Your task to perform on an android device: check data usage Image 0: 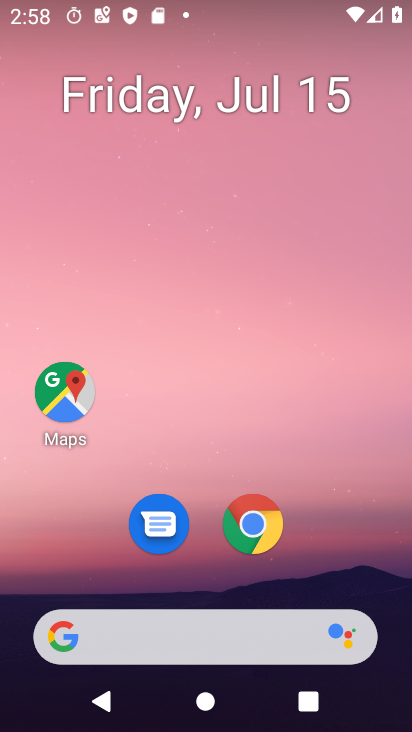
Step 0: drag from (200, 651) to (254, 459)
Your task to perform on an android device: check data usage Image 1: 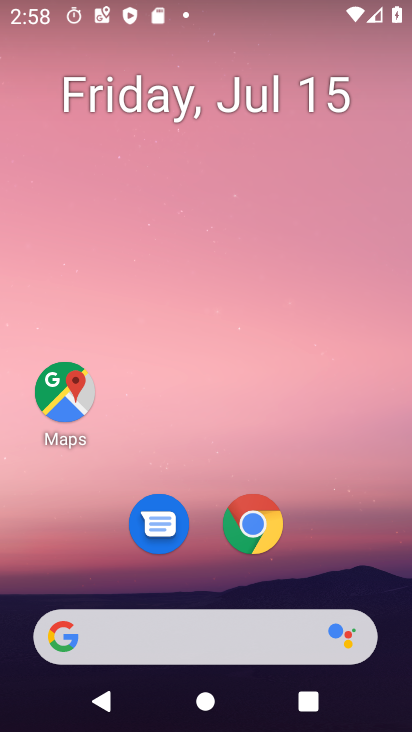
Step 1: drag from (179, 631) to (330, 143)
Your task to perform on an android device: check data usage Image 2: 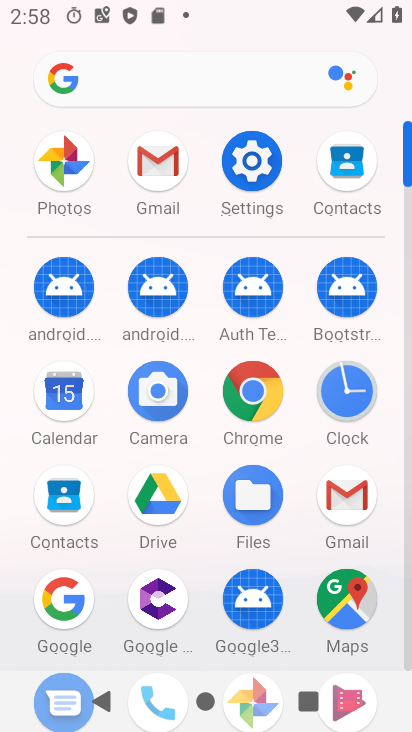
Step 2: click (249, 167)
Your task to perform on an android device: check data usage Image 3: 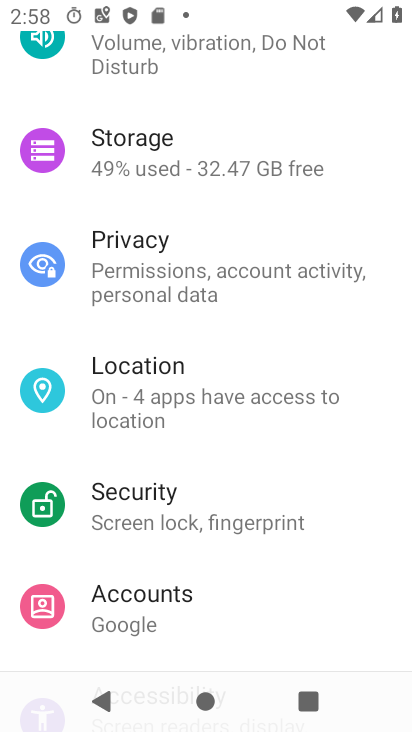
Step 3: drag from (254, 104) to (234, 558)
Your task to perform on an android device: check data usage Image 4: 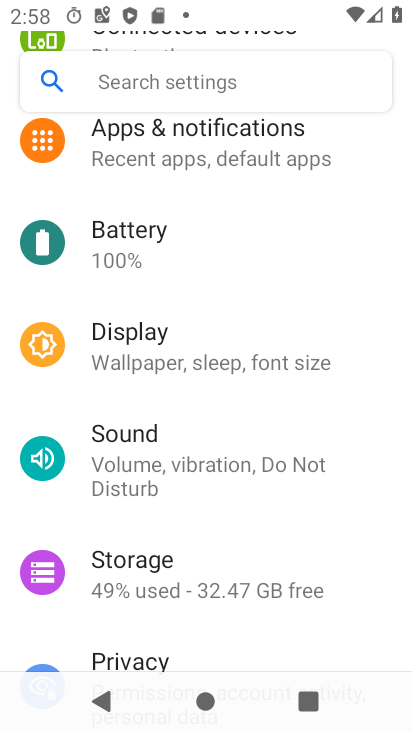
Step 4: drag from (257, 269) to (234, 524)
Your task to perform on an android device: check data usage Image 5: 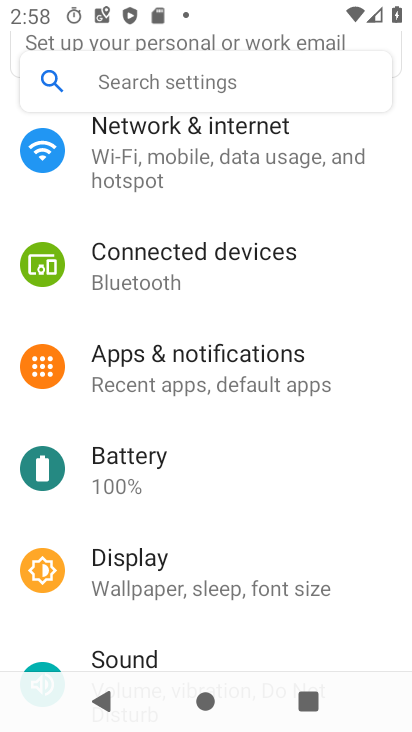
Step 5: click (209, 148)
Your task to perform on an android device: check data usage Image 6: 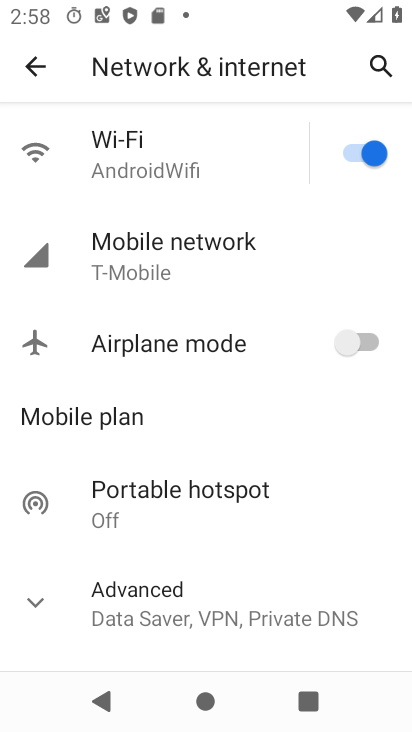
Step 6: click (154, 179)
Your task to perform on an android device: check data usage Image 7: 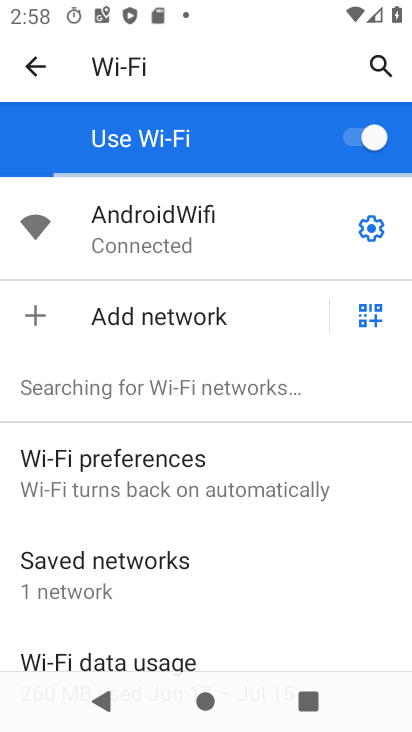
Step 7: drag from (270, 499) to (331, 172)
Your task to perform on an android device: check data usage Image 8: 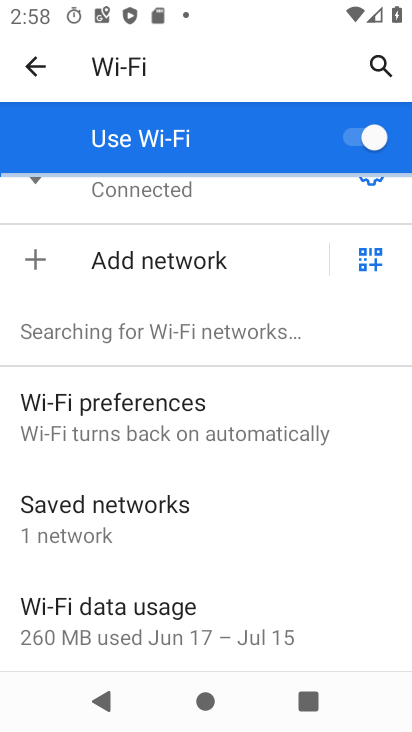
Step 8: click (158, 603)
Your task to perform on an android device: check data usage Image 9: 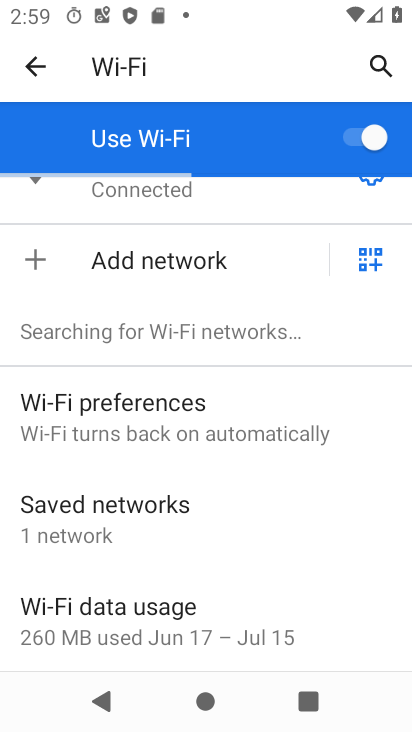
Step 9: click (168, 608)
Your task to perform on an android device: check data usage Image 10: 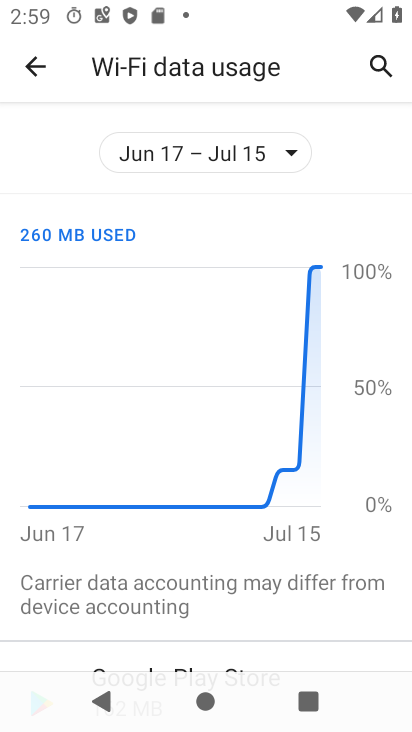
Step 10: task complete